Your task to perform on an android device: Open the Play Movies app and select the watchlist tab. Image 0: 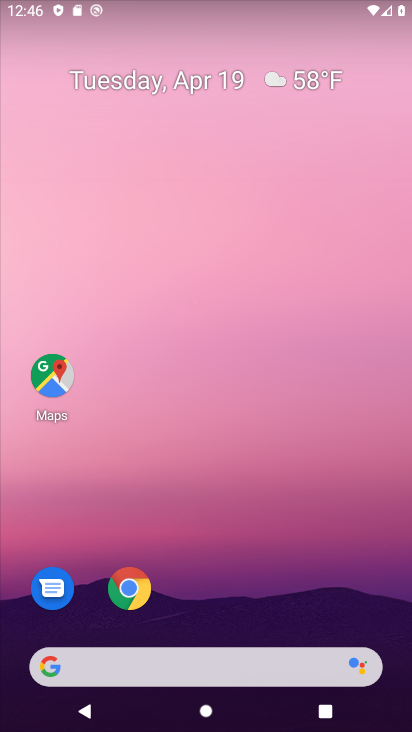
Step 0: drag from (210, 607) to (210, 215)
Your task to perform on an android device: Open the Play Movies app and select the watchlist tab. Image 1: 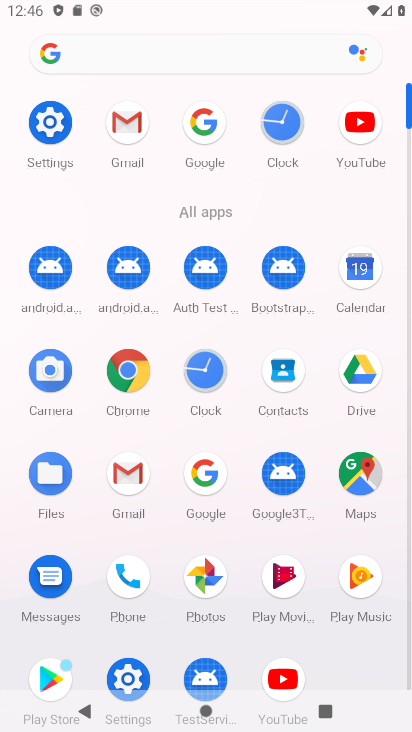
Step 1: drag from (251, 589) to (240, 337)
Your task to perform on an android device: Open the Play Movies app and select the watchlist tab. Image 2: 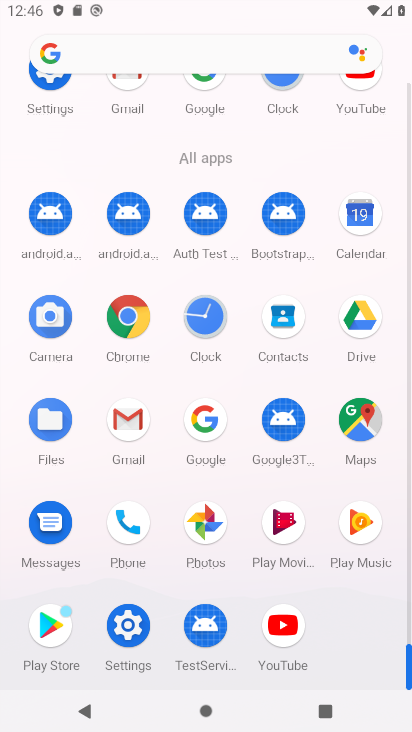
Step 2: click (278, 507)
Your task to perform on an android device: Open the Play Movies app and select the watchlist tab. Image 3: 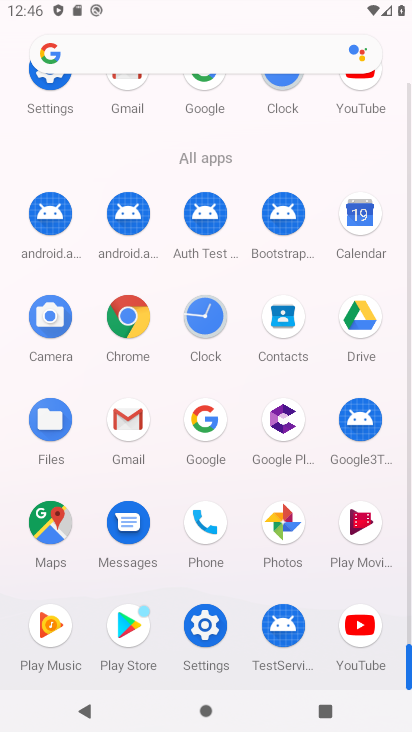
Step 3: drag from (254, 581) to (257, 352)
Your task to perform on an android device: Open the Play Movies app and select the watchlist tab. Image 4: 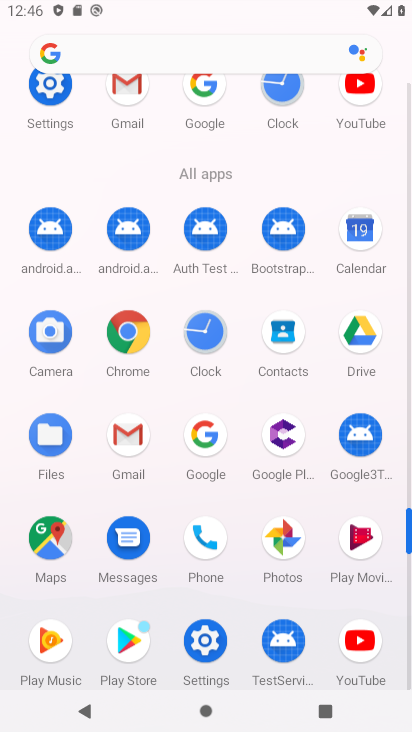
Step 4: click (355, 531)
Your task to perform on an android device: Open the Play Movies app and select the watchlist tab. Image 5: 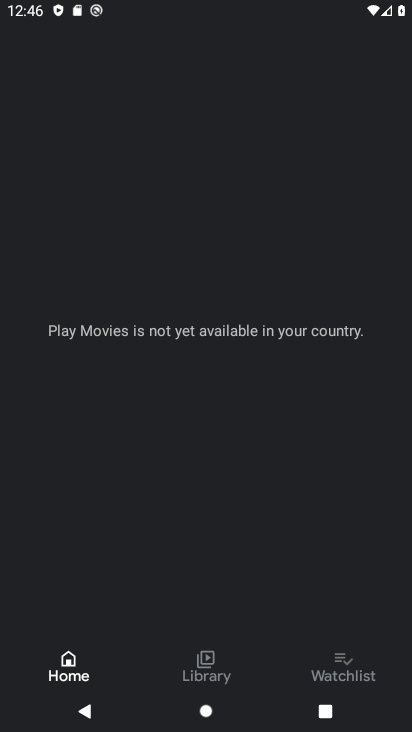
Step 5: click (336, 670)
Your task to perform on an android device: Open the Play Movies app and select the watchlist tab. Image 6: 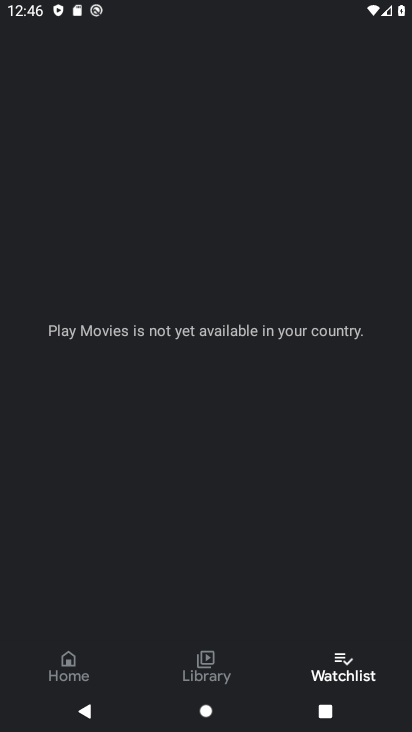
Step 6: task complete